Your task to perform on an android device: Go to calendar. Show me events next week Image 0: 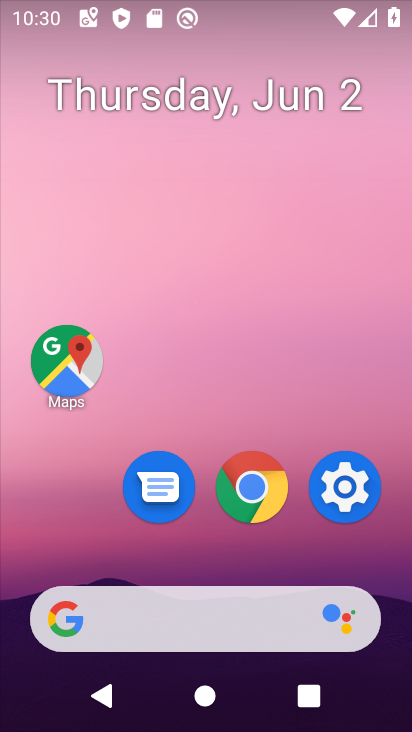
Step 0: press home button
Your task to perform on an android device: Go to calendar. Show me events next week Image 1: 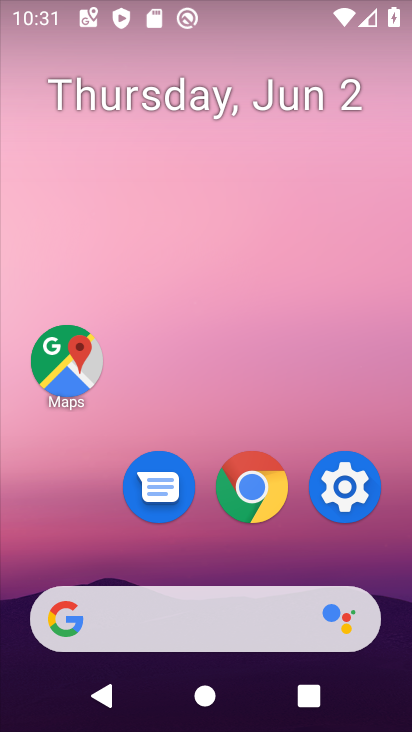
Step 1: drag from (168, 643) to (284, 181)
Your task to perform on an android device: Go to calendar. Show me events next week Image 2: 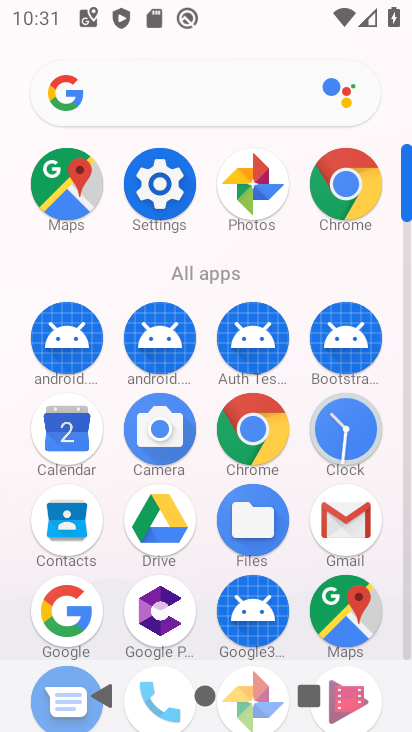
Step 2: drag from (75, 432) to (218, 348)
Your task to perform on an android device: Go to calendar. Show me events next week Image 3: 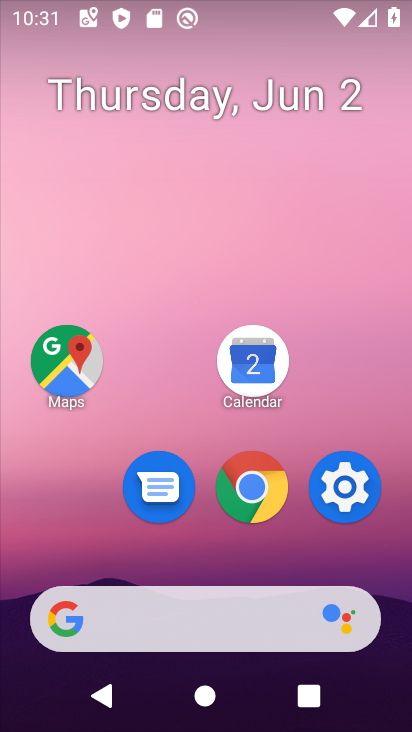
Step 3: click (300, 355)
Your task to perform on an android device: Go to calendar. Show me events next week Image 4: 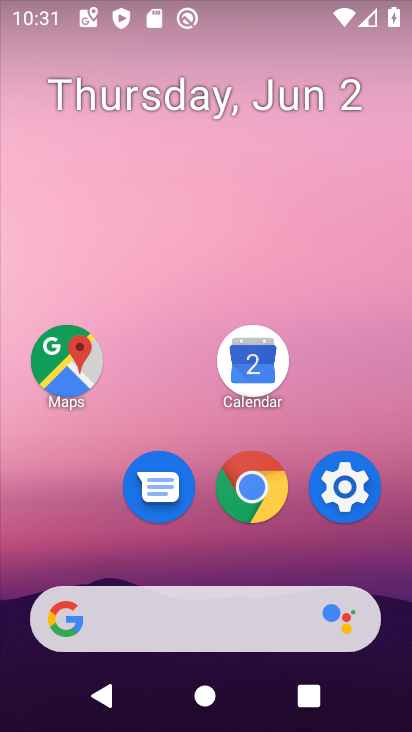
Step 4: click (237, 363)
Your task to perform on an android device: Go to calendar. Show me events next week Image 5: 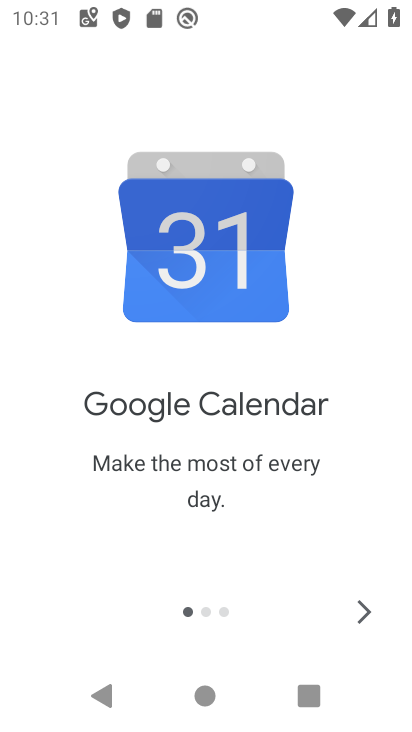
Step 5: click (366, 594)
Your task to perform on an android device: Go to calendar. Show me events next week Image 6: 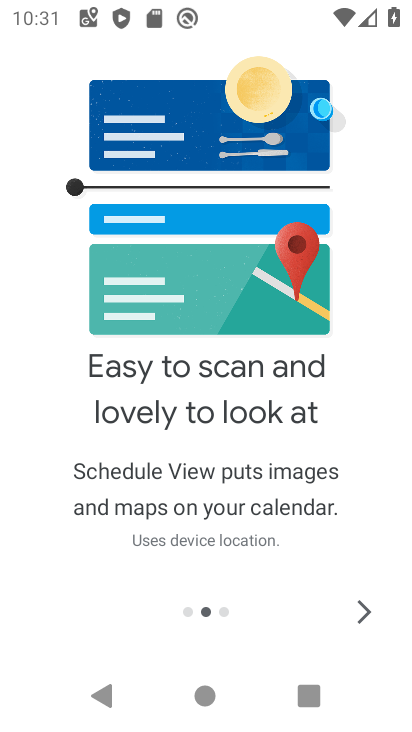
Step 6: click (365, 618)
Your task to perform on an android device: Go to calendar. Show me events next week Image 7: 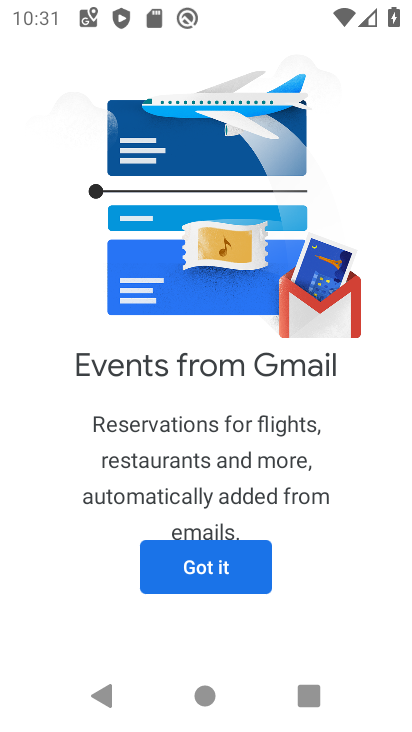
Step 7: click (185, 565)
Your task to perform on an android device: Go to calendar. Show me events next week Image 8: 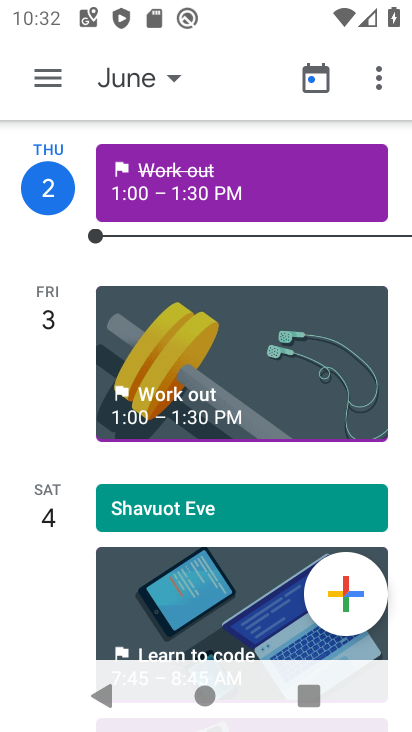
Step 8: click (44, 72)
Your task to perform on an android device: Go to calendar. Show me events next week Image 9: 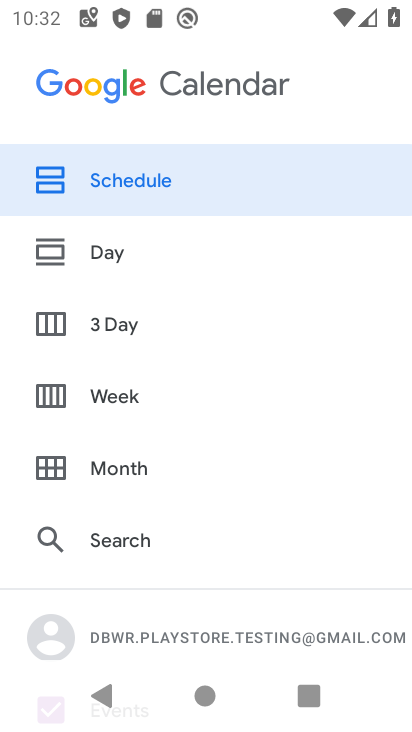
Step 9: click (114, 470)
Your task to perform on an android device: Go to calendar. Show me events next week Image 10: 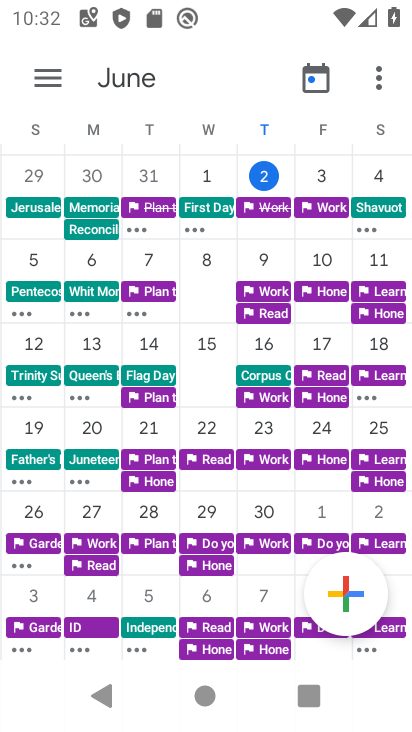
Step 10: click (86, 287)
Your task to perform on an android device: Go to calendar. Show me events next week Image 11: 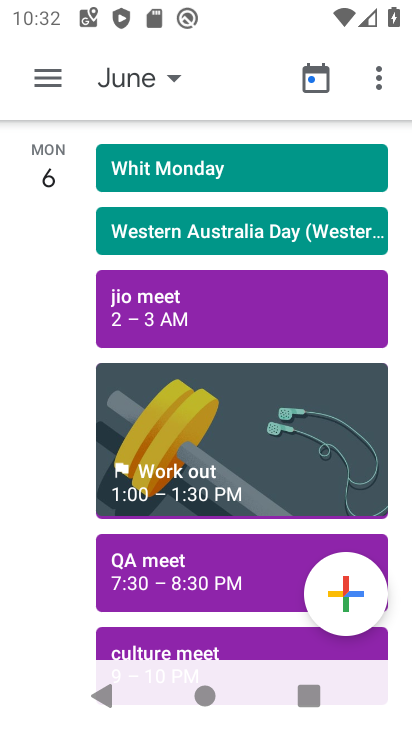
Step 11: task complete